Your task to perform on an android device: toggle location history Image 0: 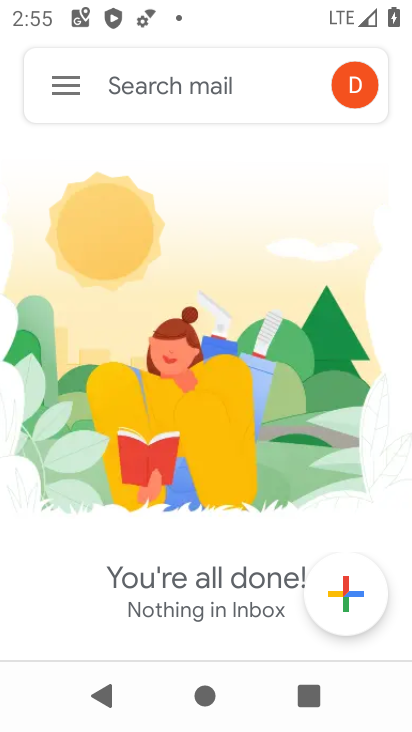
Step 0: press home button
Your task to perform on an android device: toggle location history Image 1: 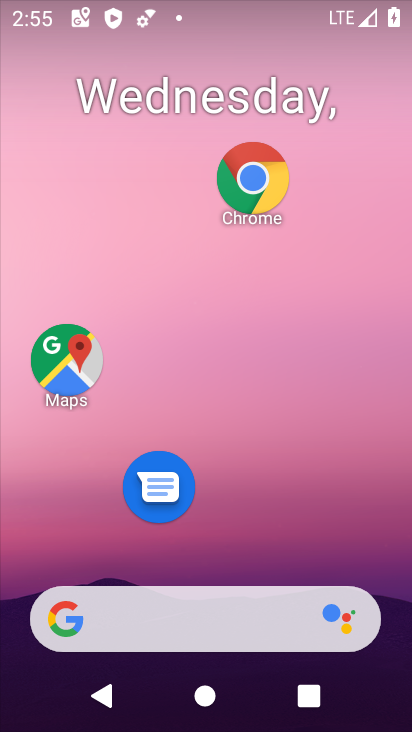
Step 1: drag from (220, 556) to (302, 53)
Your task to perform on an android device: toggle location history Image 2: 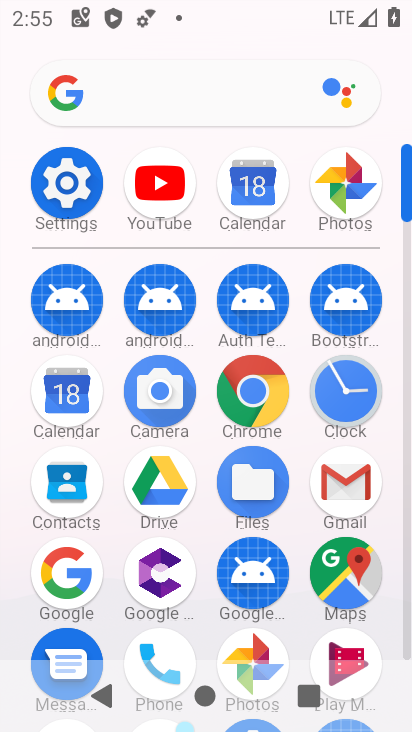
Step 2: click (65, 194)
Your task to perform on an android device: toggle location history Image 3: 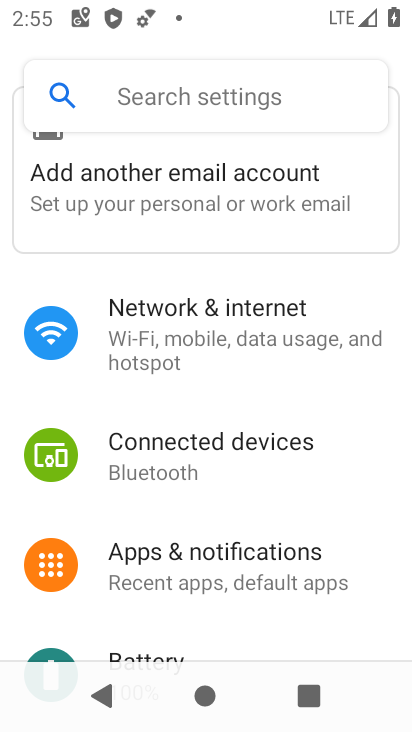
Step 3: drag from (155, 525) to (214, 212)
Your task to perform on an android device: toggle location history Image 4: 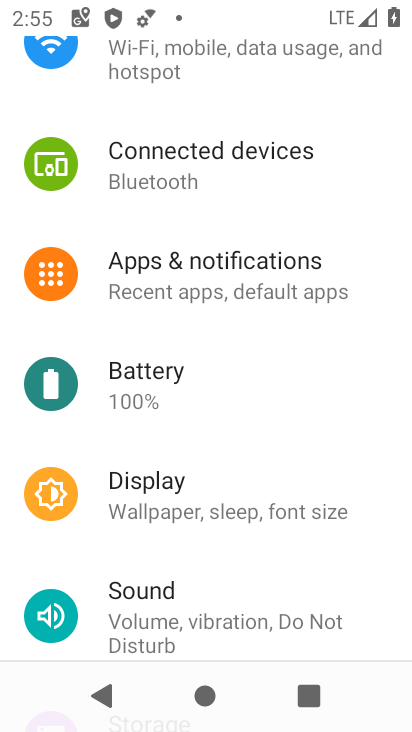
Step 4: drag from (289, 508) to (348, 234)
Your task to perform on an android device: toggle location history Image 5: 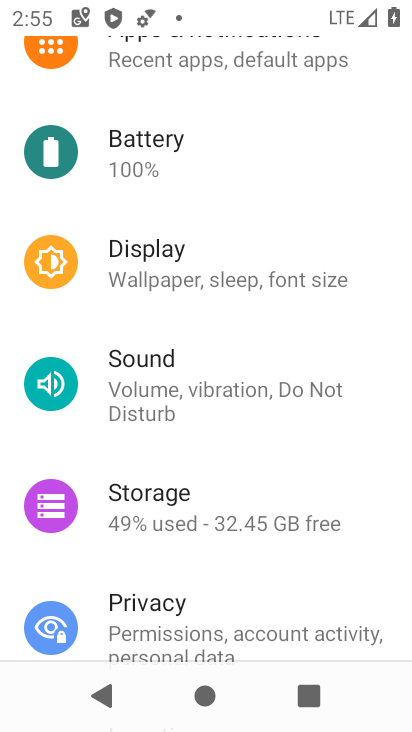
Step 5: drag from (310, 567) to (331, 349)
Your task to perform on an android device: toggle location history Image 6: 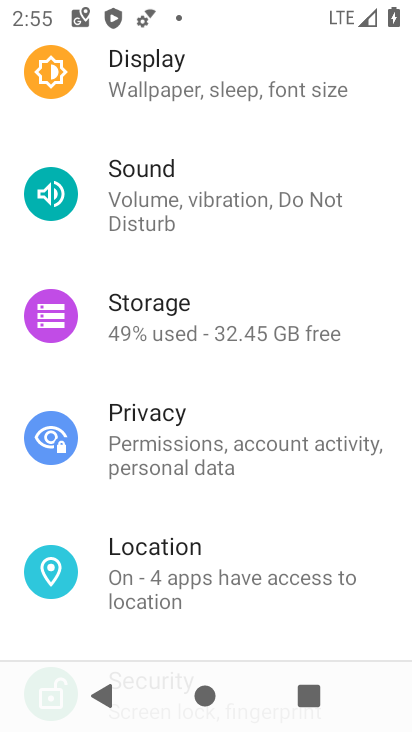
Step 6: click (305, 551)
Your task to perform on an android device: toggle location history Image 7: 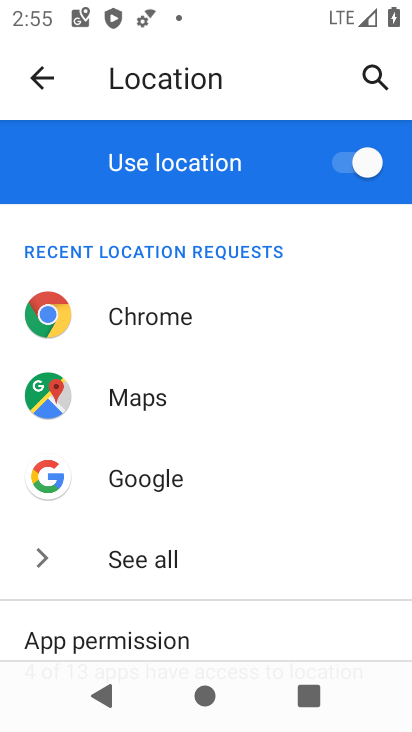
Step 7: drag from (229, 607) to (292, 296)
Your task to perform on an android device: toggle location history Image 8: 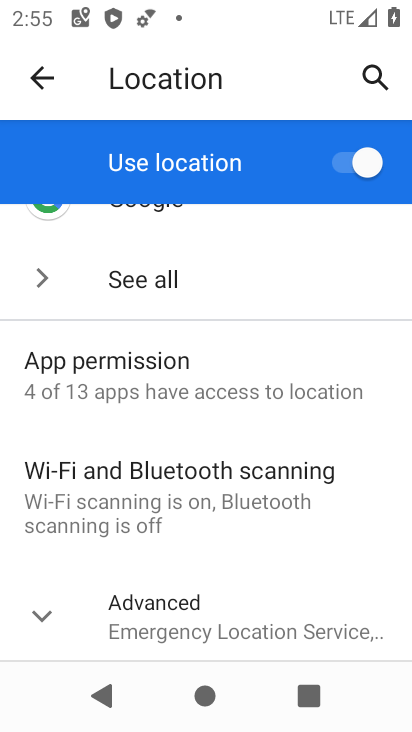
Step 8: click (230, 585)
Your task to perform on an android device: toggle location history Image 9: 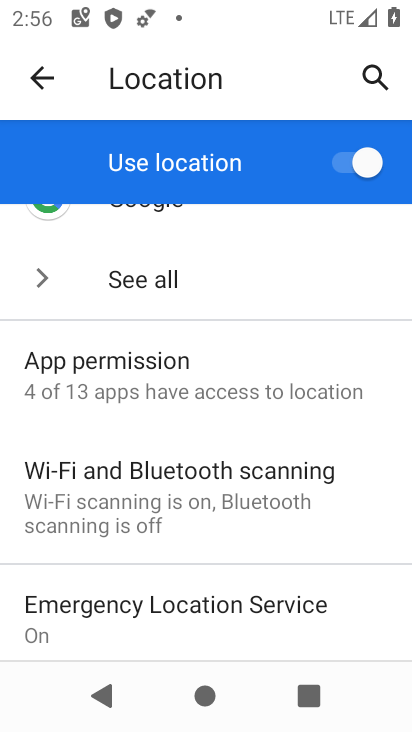
Step 9: drag from (209, 612) to (271, 293)
Your task to perform on an android device: toggle location history Image 10: 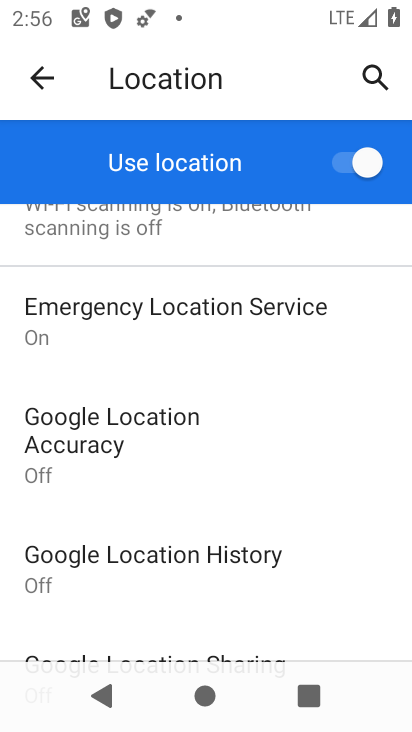
Step 10: click (178, 583)
Your task to perform on an android device: toggle location history Image 11: 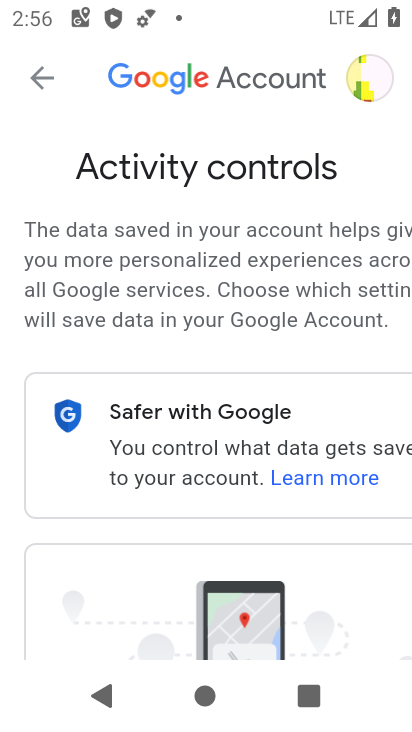
Step 11: drag from (237, 588) to (365, 129)
Your task to perform on an android device: toggle location history Image 12: 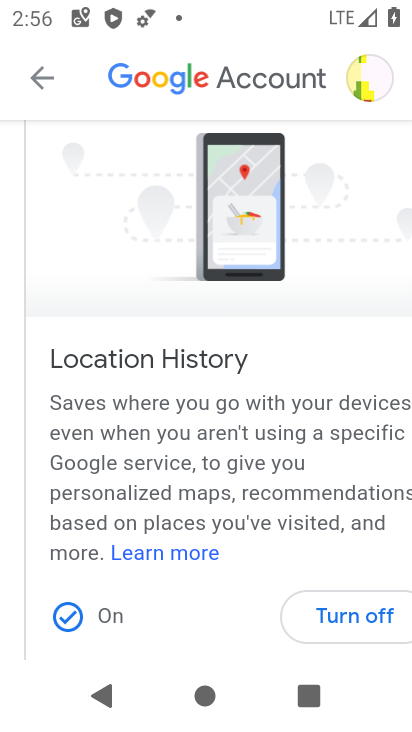
Step 12: click (334, 620)
Your task to perform on an android device: toggle location history Image 13: 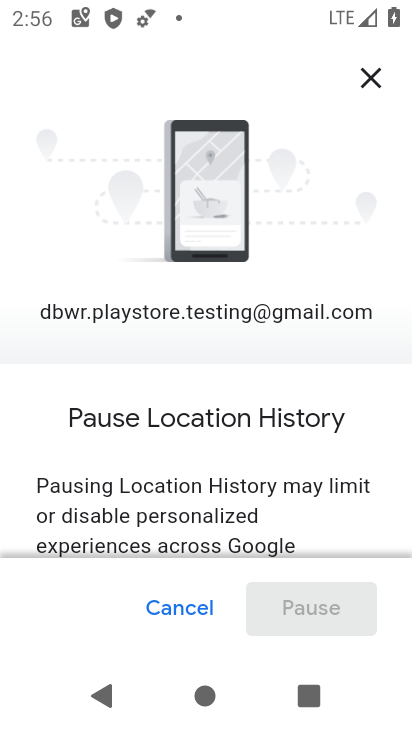
Step 13: drag from (276, 519) to (321, 119)
Your task to perform on an android device: toggle location history Image 14: 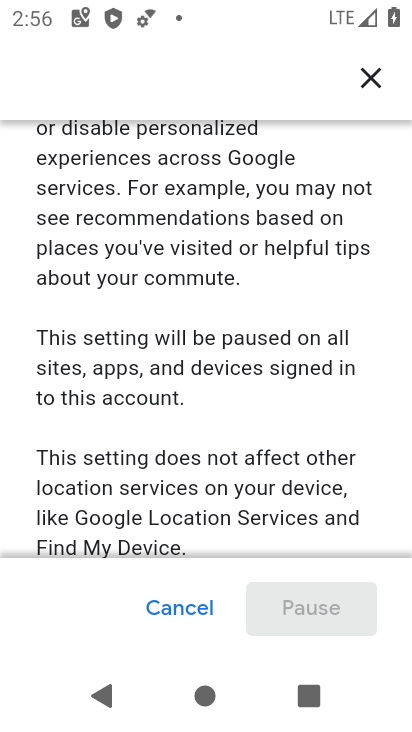
Step 14: drag from (283, 497) to (307, 109)
Your task to perform on an android device: toggle location history Image 15: 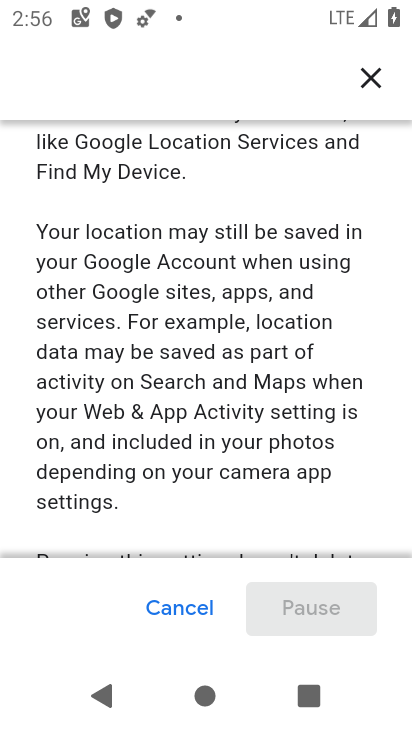
Step 15: drag from (237, 498) to (276, 108)
Your task to perform on an android device: toggle location history Image 16: 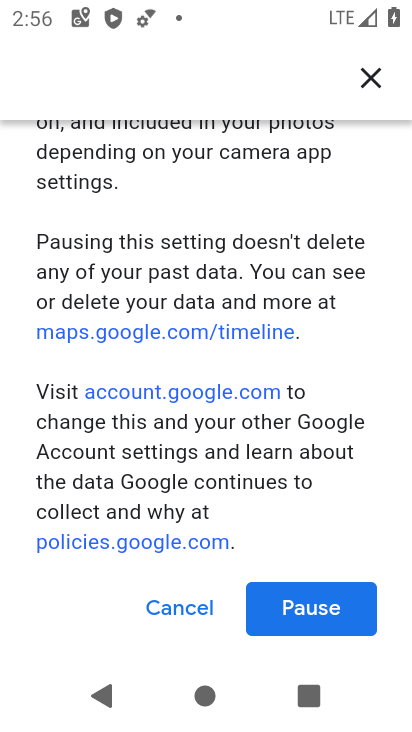
Step 16: click (304, 614)
Your task to perform on an android device: toggle location history Image 17: 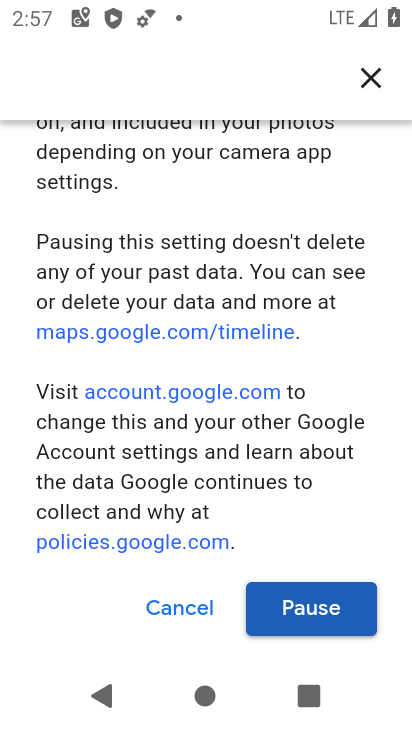
Step 17: click (296, 604)
Your task to perform on an android device: toggle location history Image 18: 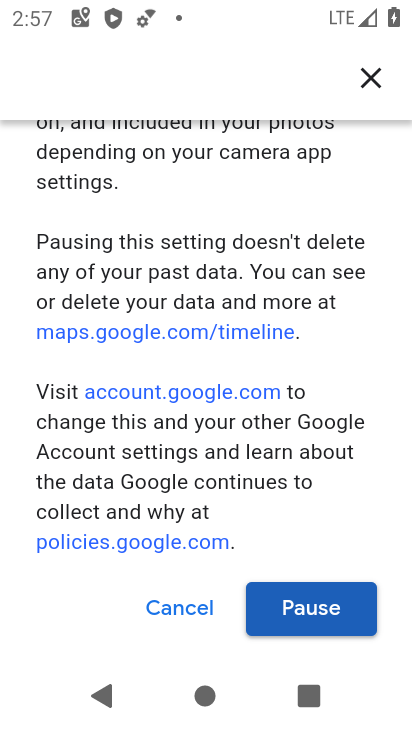
Step 18: click (293, 600)
Your task to perform on an android device: toggle location history Image 19: 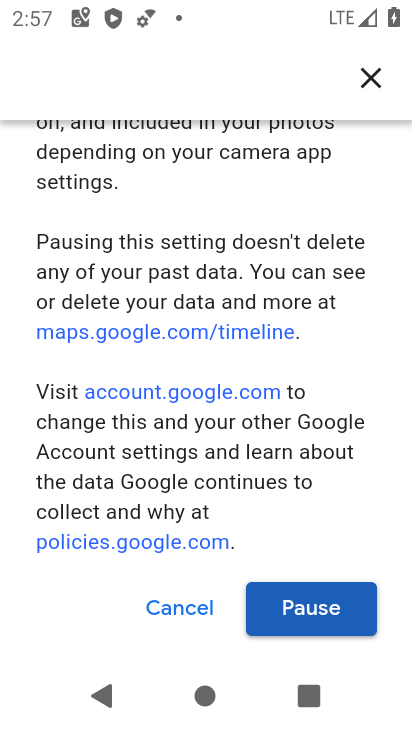
Step 19: click (293, 600)
Your task to perform on an android device: toggle location history Image 20: 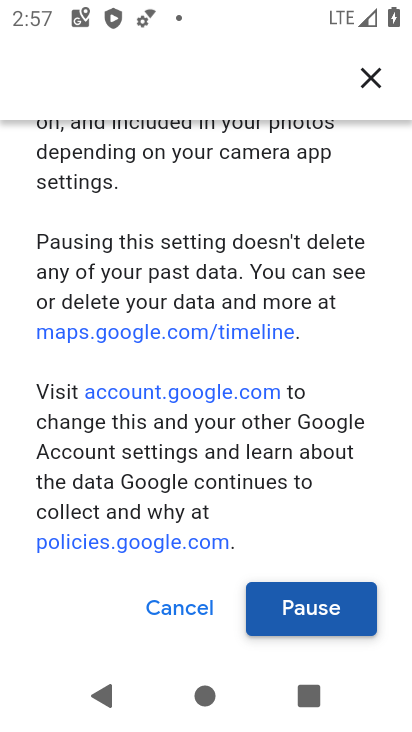
Step 20: click (340, 589)
Your task to perform on an android device: toggle location history Image 21: 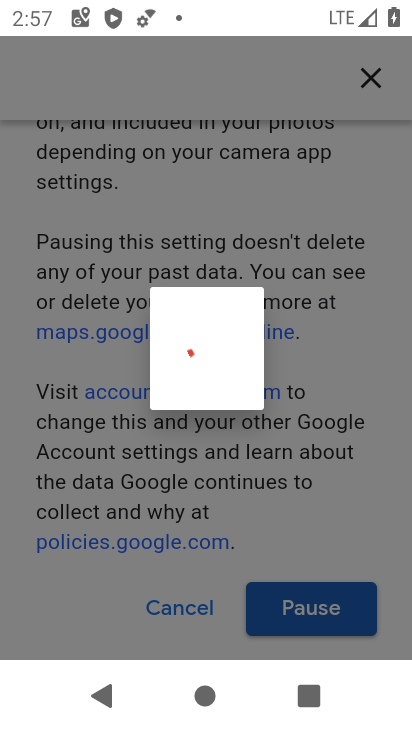
Step 21: click (339, 603)
Your task to perform on an android device: toggle location history Image 22: 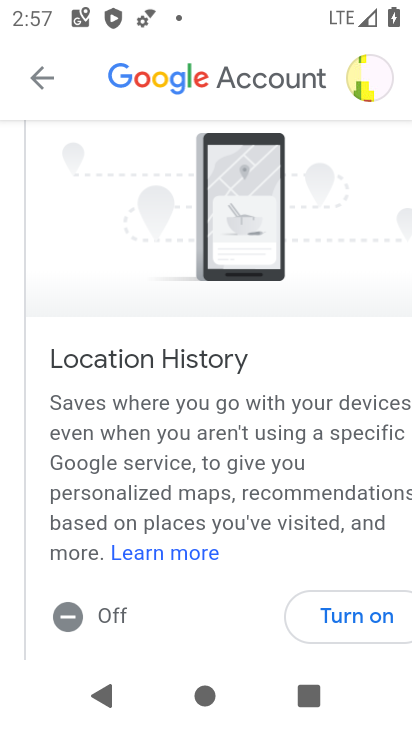
Step 22: task complete